Your task to perform on an android device: find which apps use the phone's location Image 0: 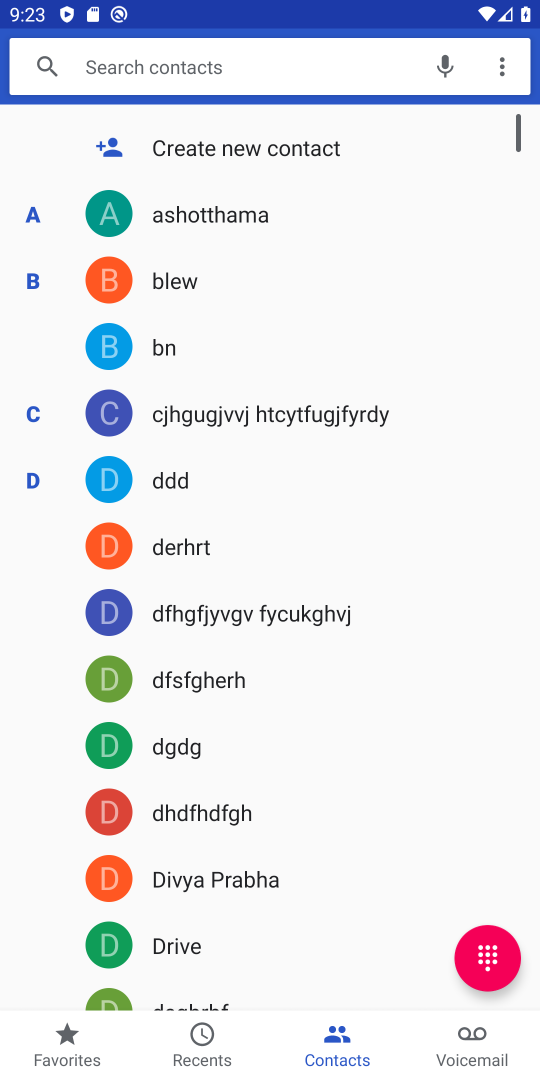
Step 0: press home button
Your task to perform on an android device: find which apps use the phone's location Image 1: 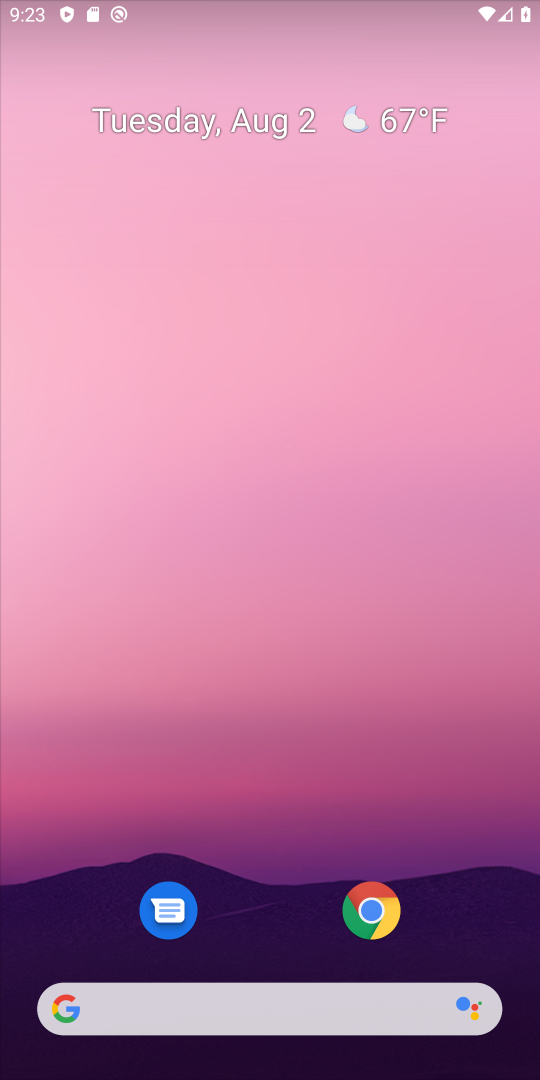
Step 1: drag from (236, 862) to (248, 371)
Your task to perform on an android device: find which apps use the phone's location Image 2: 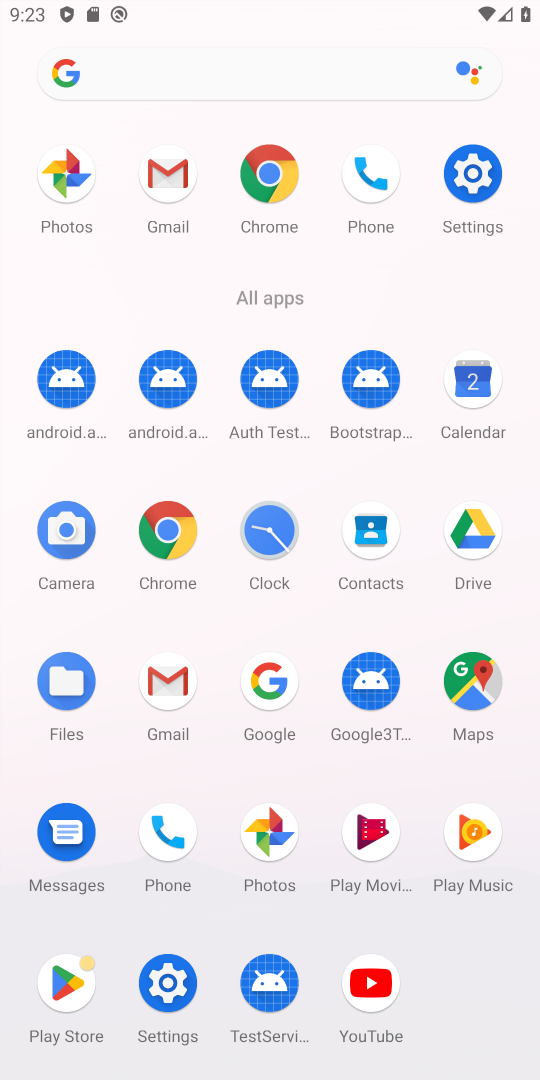
Step 2: click (456, 169)
Your task to perform on an android device: find which apps use the phone's location Image 3: 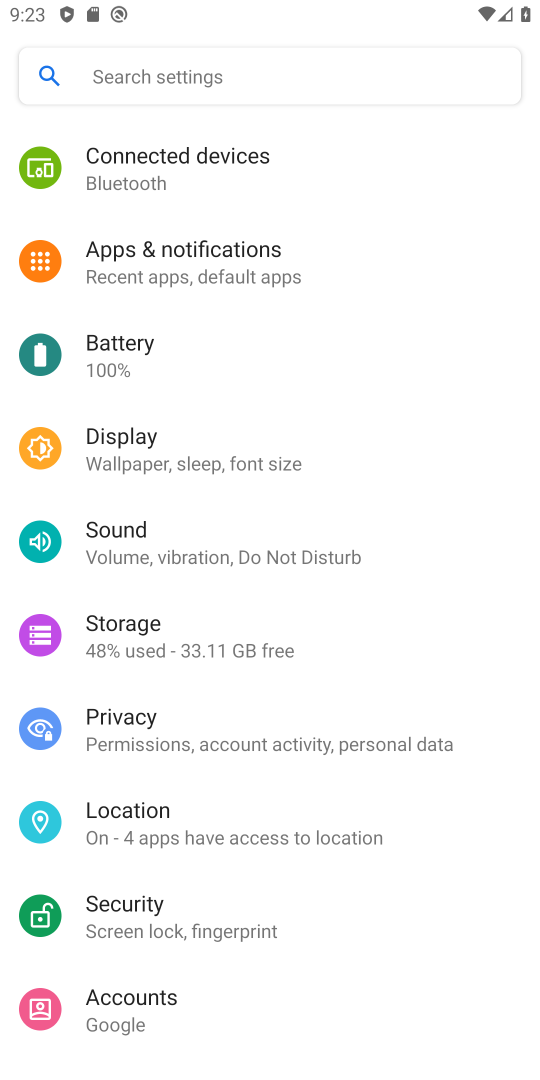
Step 3: click (198, 833)
Your task to perform on an android device: find which apps use the phone's location Image 4: 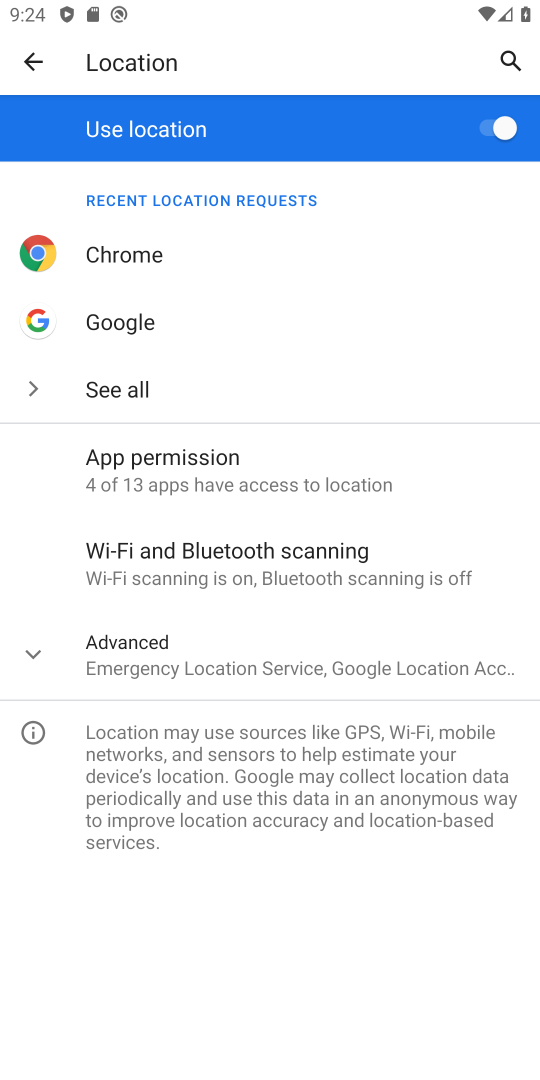
Step 4: task complete